Your task to perform on an android device: add a contact Image 0: 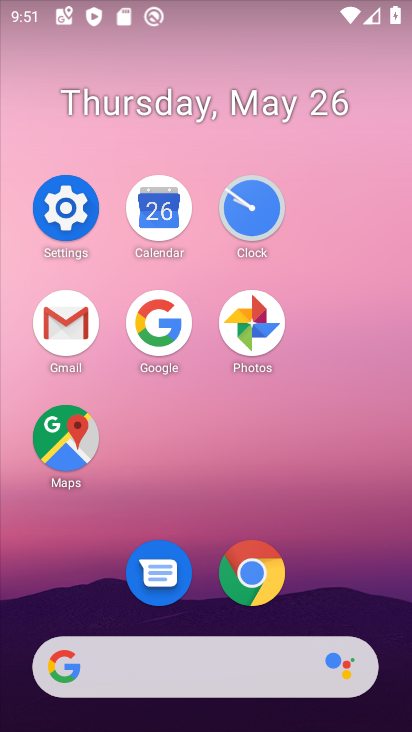
Step 0: drag from (303, 613) to (288, 166)
Your task to perform on an android device: add a contact Image 1: 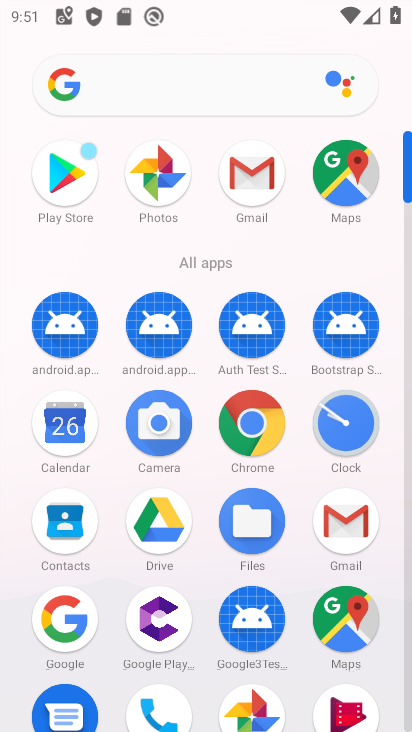
Step 1: click (57, 532)
Your task to perform on an android device: add a contact Image 2: 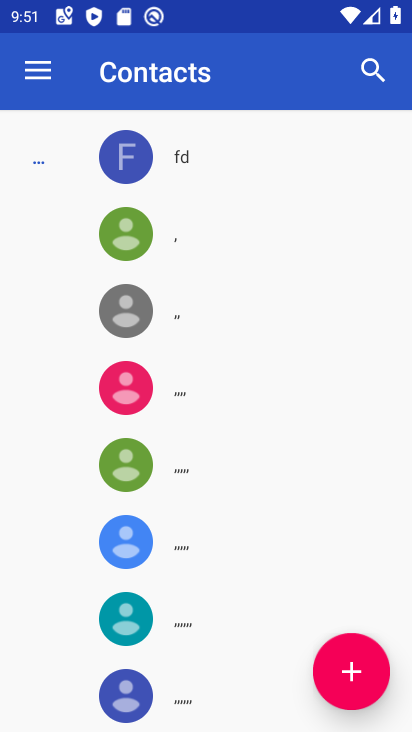
Step 2: click (360, 681)
Your task to perform on an android device: add a contact Image 3: 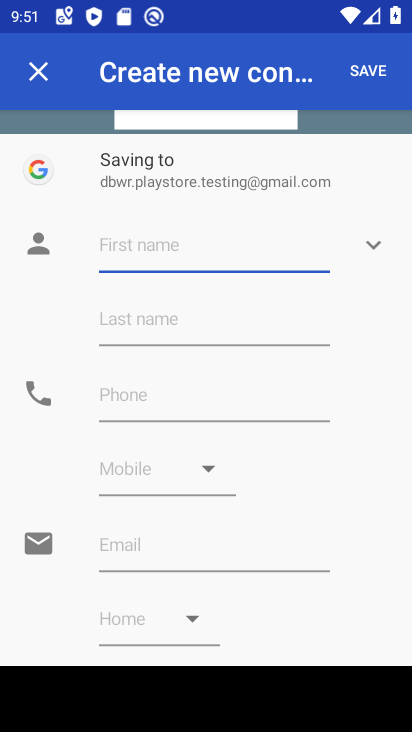
Step 3: type "yyy"
Your task to perform on an android device: add a contact Image 4: 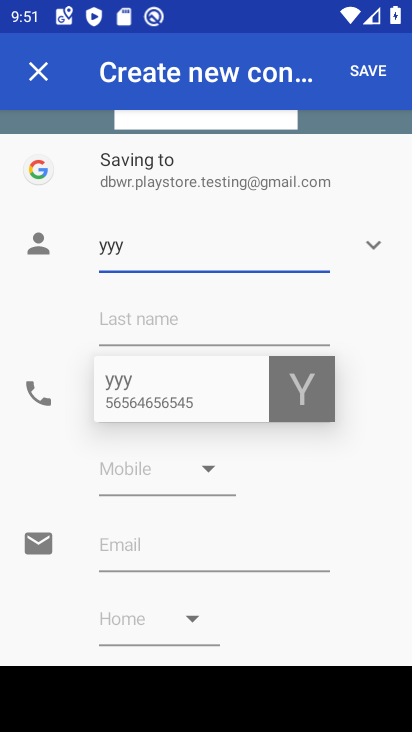
Step 4: click (153, 397)
Your task to perform on an android device: add a contact Image 5: 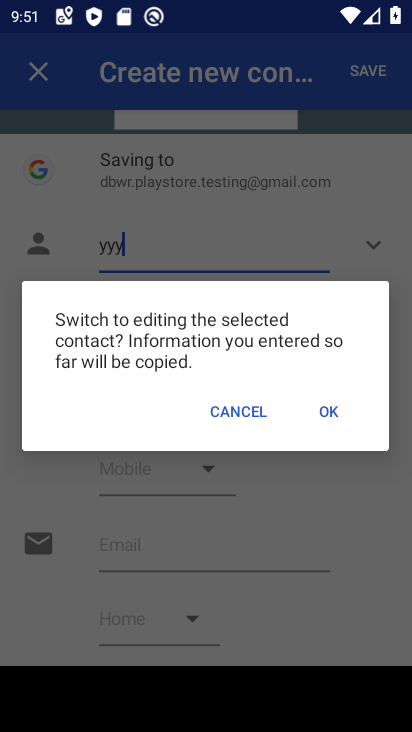
Step 5: click (246, 420)
Your task to perform on an android device: add a contact Image 6: 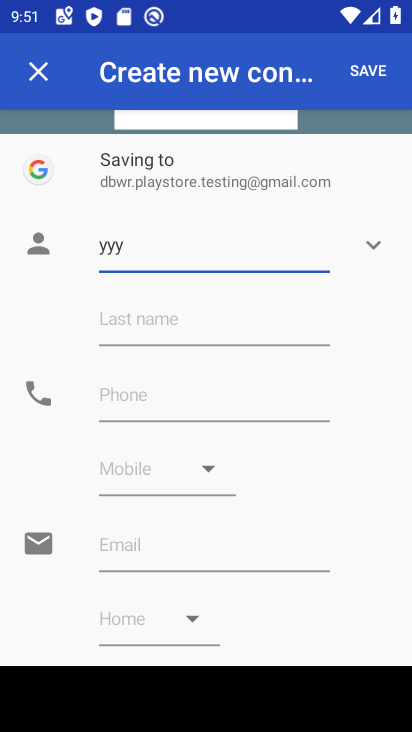
Step 6: click (180, 311)
Your task to perform on an android device: add a contact Image 7: 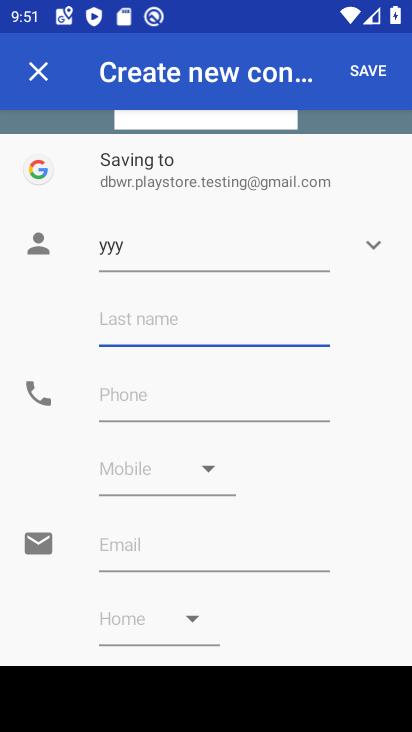
Step 7: type "ii"
Your task to perform on an android device: add a contact Image 8: 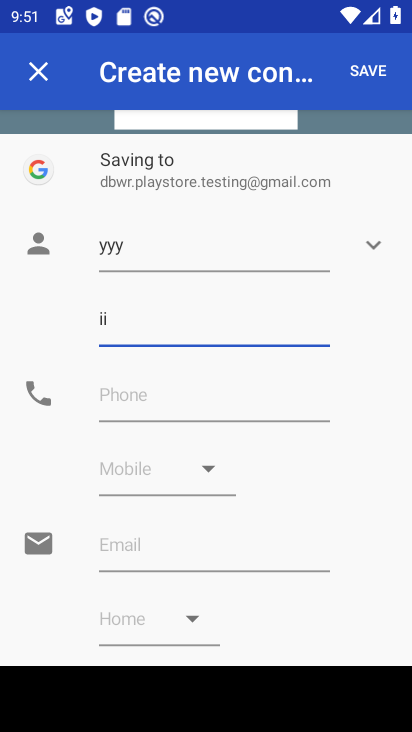
Step 8: click (169, 407)
Your task to perform on an android device: add a contact Image 9: 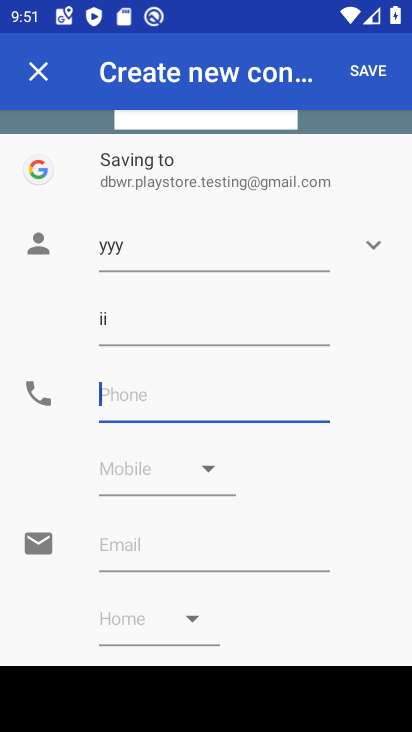
Step 9: type "8877665543"
Your task to perform on an android device: add a contact Image 10: 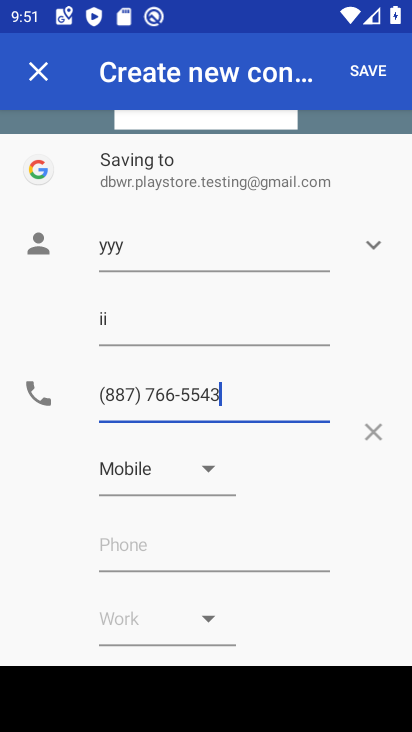
Step 10: click (377, 73)
Your task to perform on an android device: add a contact Image 11: 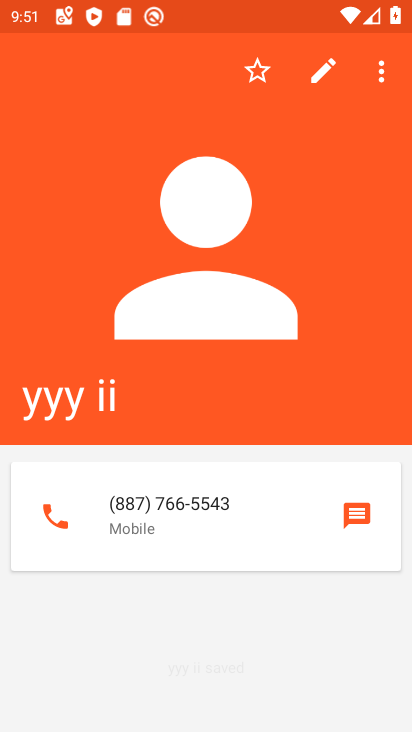
Step 11: task complete